Your task to perform on an android device: change the clock display to digital Image 0: 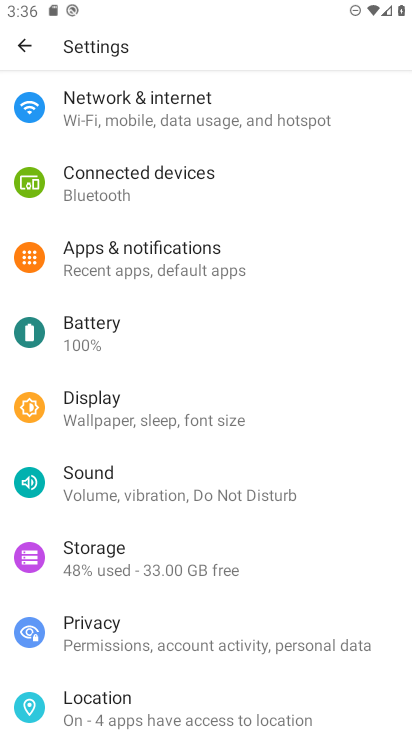
Step 0: press back button
Your task to perform on an android device: change the clock display to digital Image 1: 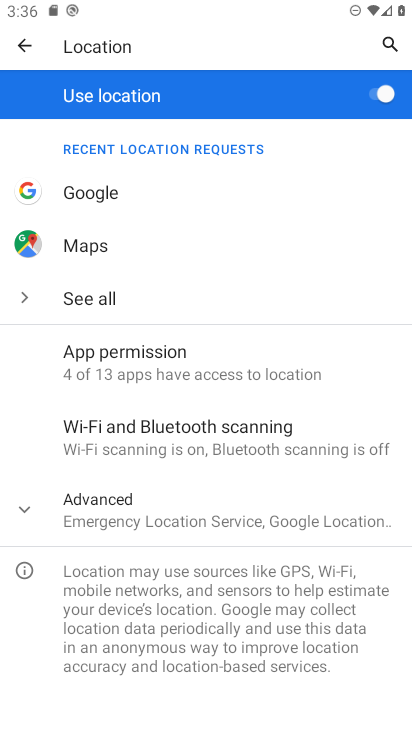
Step 1: press back button
Your task to perform on an android device: change the clock display to digital Image 2: 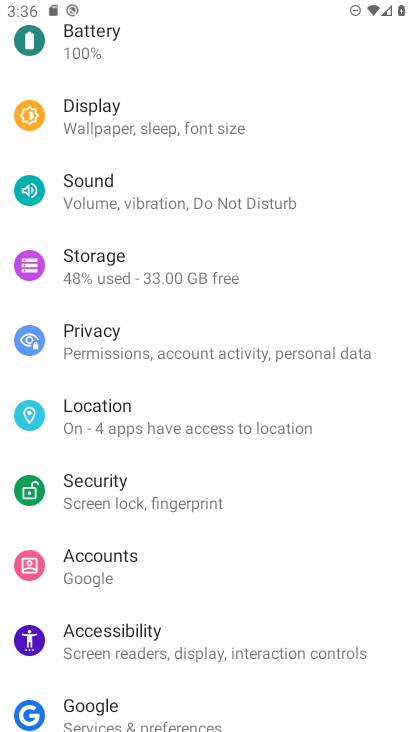
Step 2: press back button
Your task to perform on an android device: change the clock display to digital Image 3: 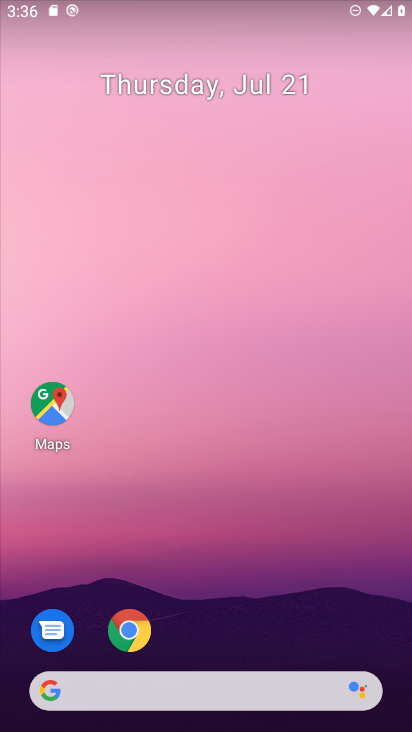
Step 3: drag from (208, 620) to (267, 1)
Your task to perform on an android device: change the clock display to digital Image 4: 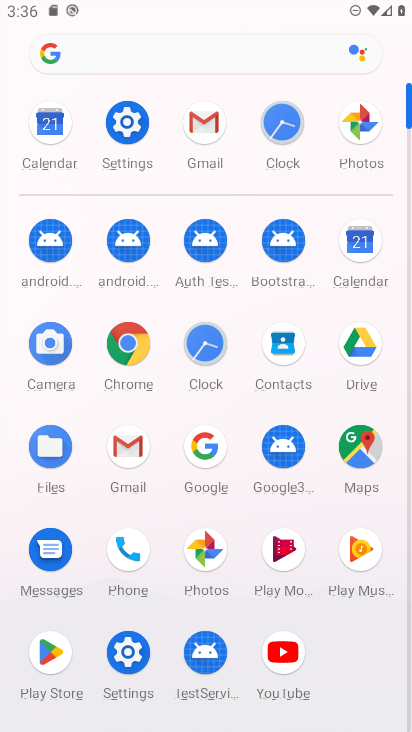
Step 4: click (283, 121)
Your task to perform on an android device: change the clock display to digital Image 5: 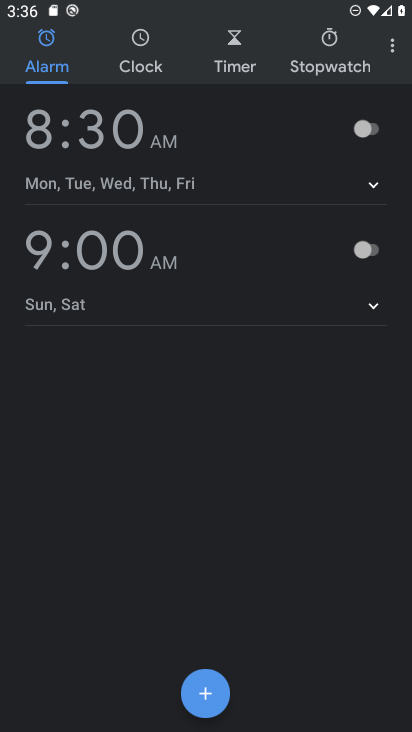
Step 5: click (388, 46)
Your task to perform on an android device: change the clock display to digital Image 6: 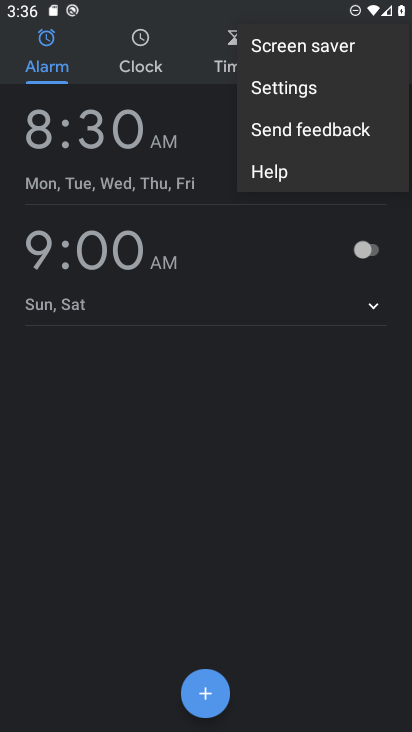
Step 6: click (257, 84)
Your task to perform on an android device: change the clock display to digital Image 7: 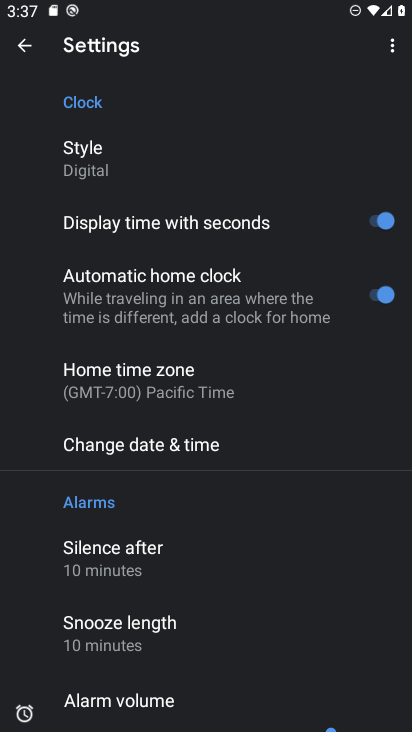
Step 7: task complete